Your task to perform on an android device: search for starred emails in the gmail app Image 0: 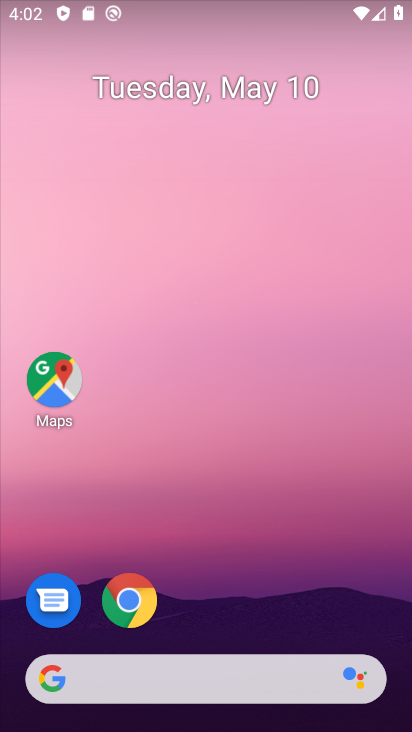
Step 0: drag from (231, 614) to (266, 184)
Your task to perform on an android device: search for starred emails in the gmail app Image 1: 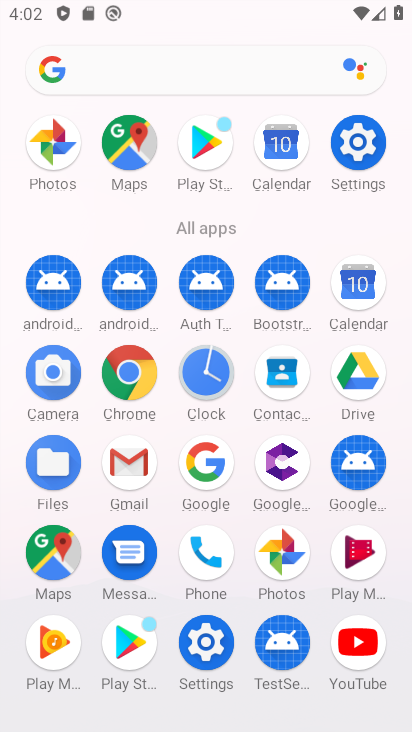
Step 1: click (122, 470)
Your task to perform on an android device: search for starred emails in the gmail app Image 2: 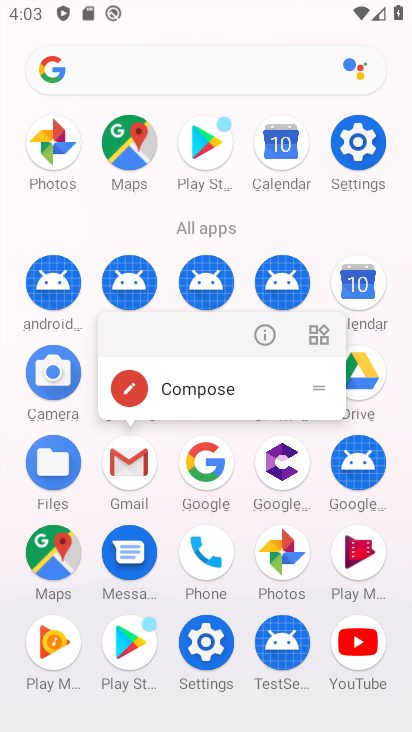
Step 2: click (144, 477)
Your task to perform on an android device: search for starred emails in the gmail app Image 3: 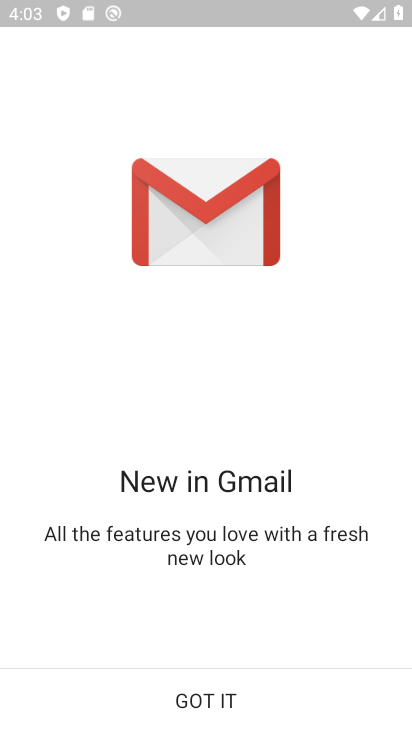
Step 3: click (198, 707)
Your task to perform on an android device: search for starred emails in the gmail app Image 4: 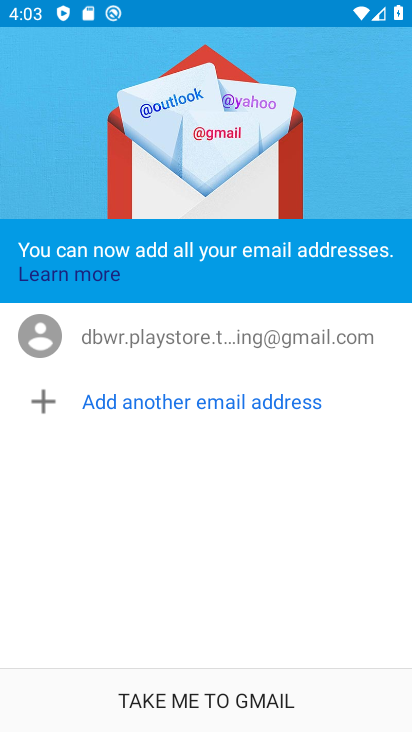
Step 4: click (198, 707)
Your task to perform on an android device: search for starred emails in the gmail app Image 5: 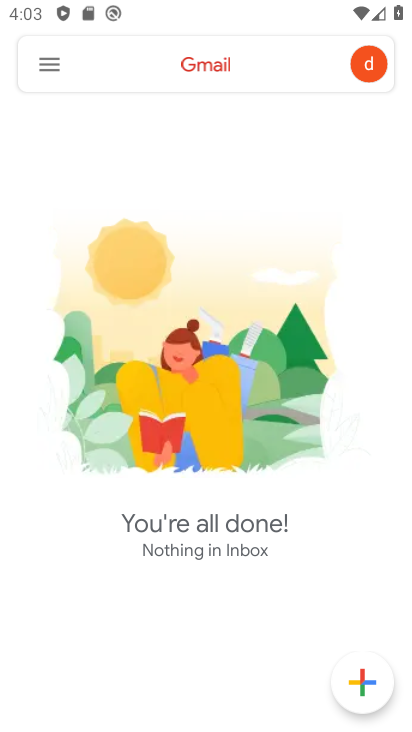
Step 5: click (44, 64)
Your task to perform on an android device: search for starred emails in the gmail app Image 6: 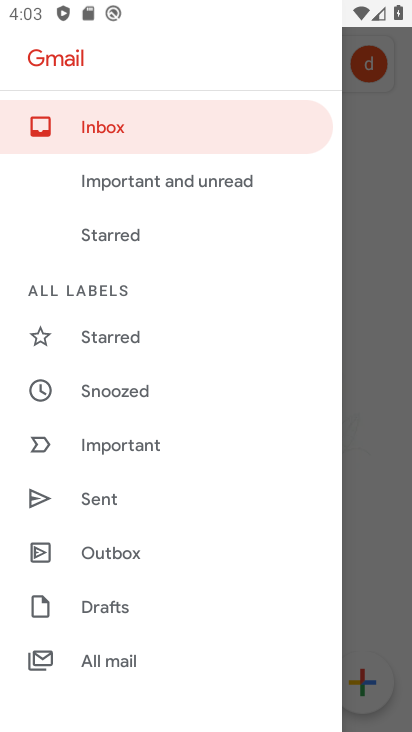
Step 6: click (80, 342)
Your task to perform on an android device: search for starred emails in the gmail app Image 7: 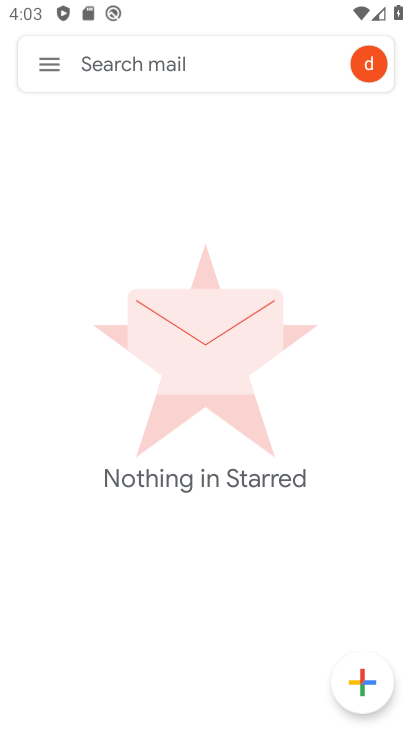
Step 7: task complete